Your task to perform on an android device: all mails in gmail Image 0: 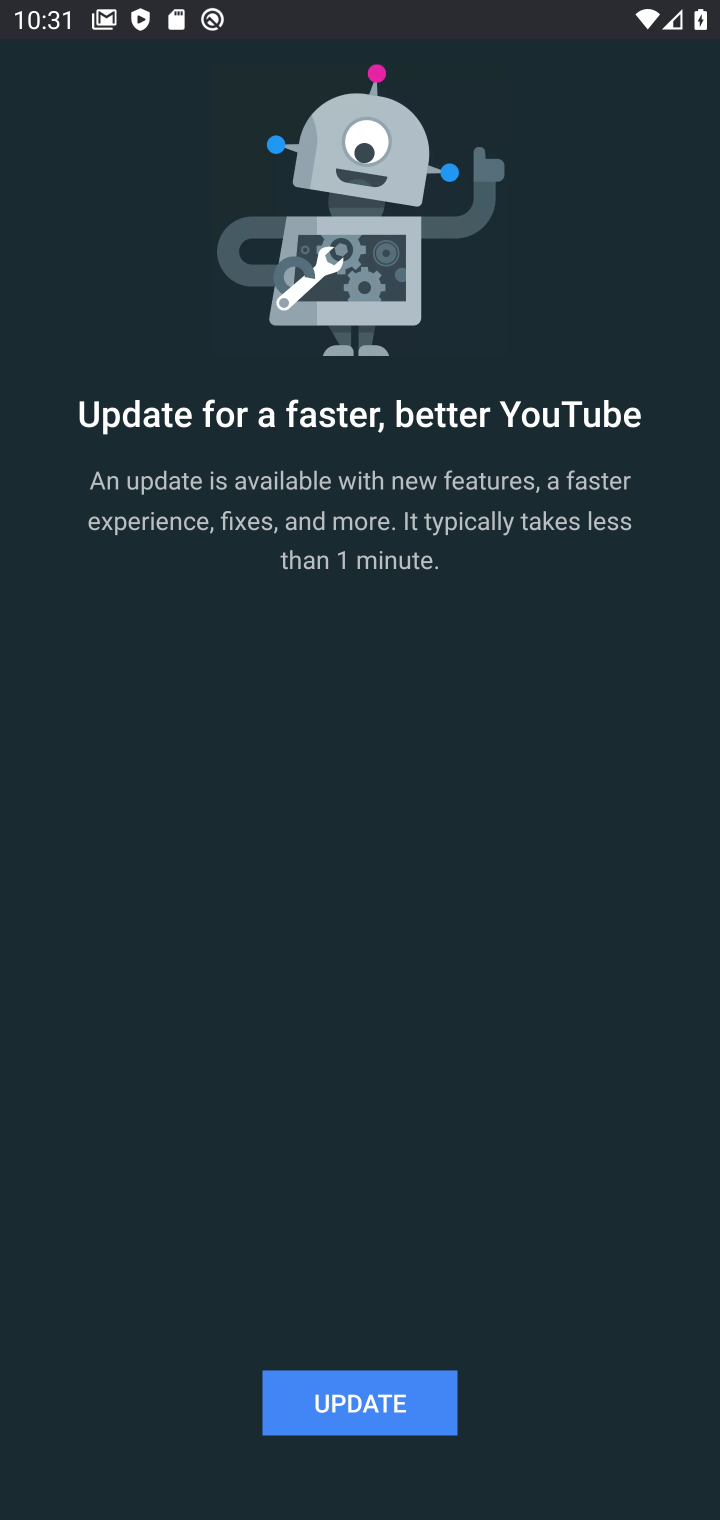
Step 0: press back button
Your task to perform on an android device: all mails in gmail Image 1: 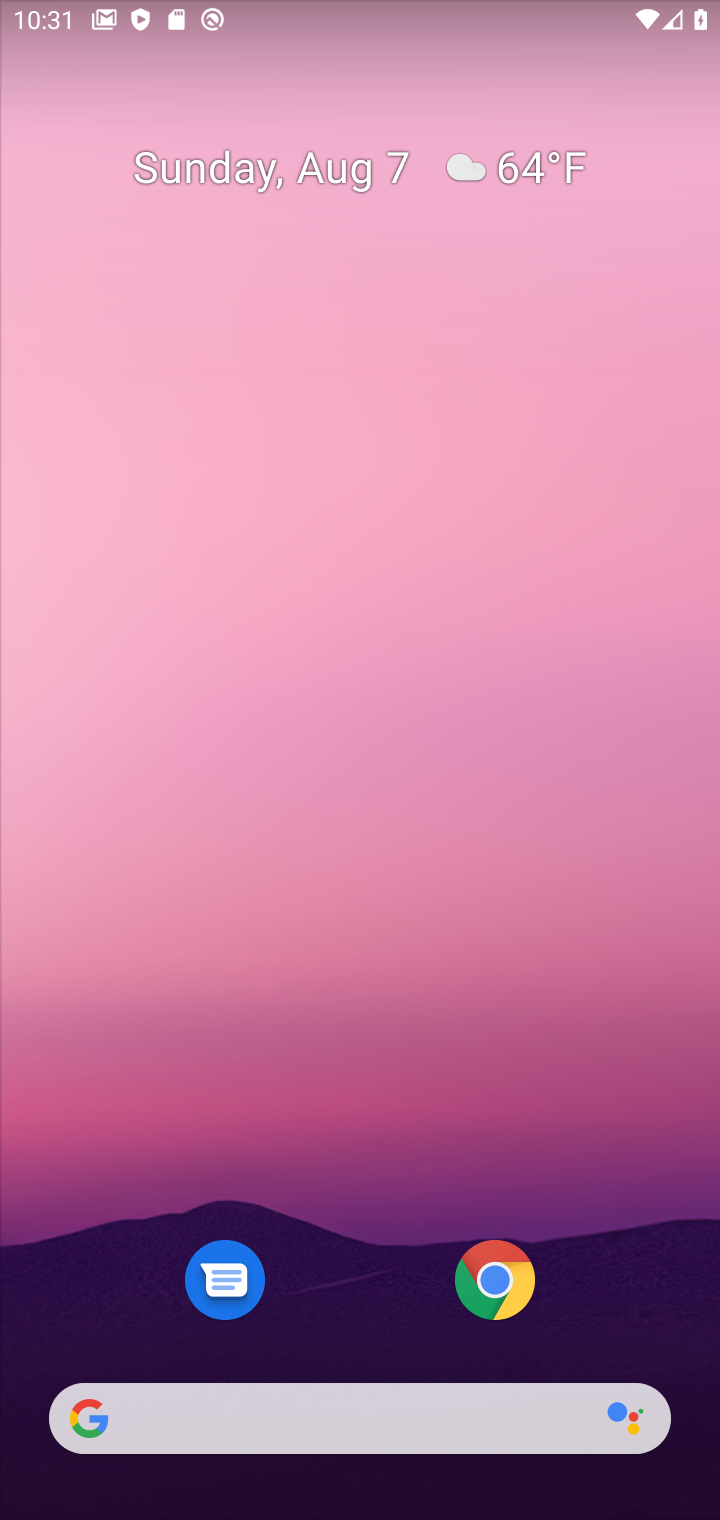
Step 1: drag from (397, 699) to (559, 10)
Your task to perform on an android device: all mails in gmail Image 2: 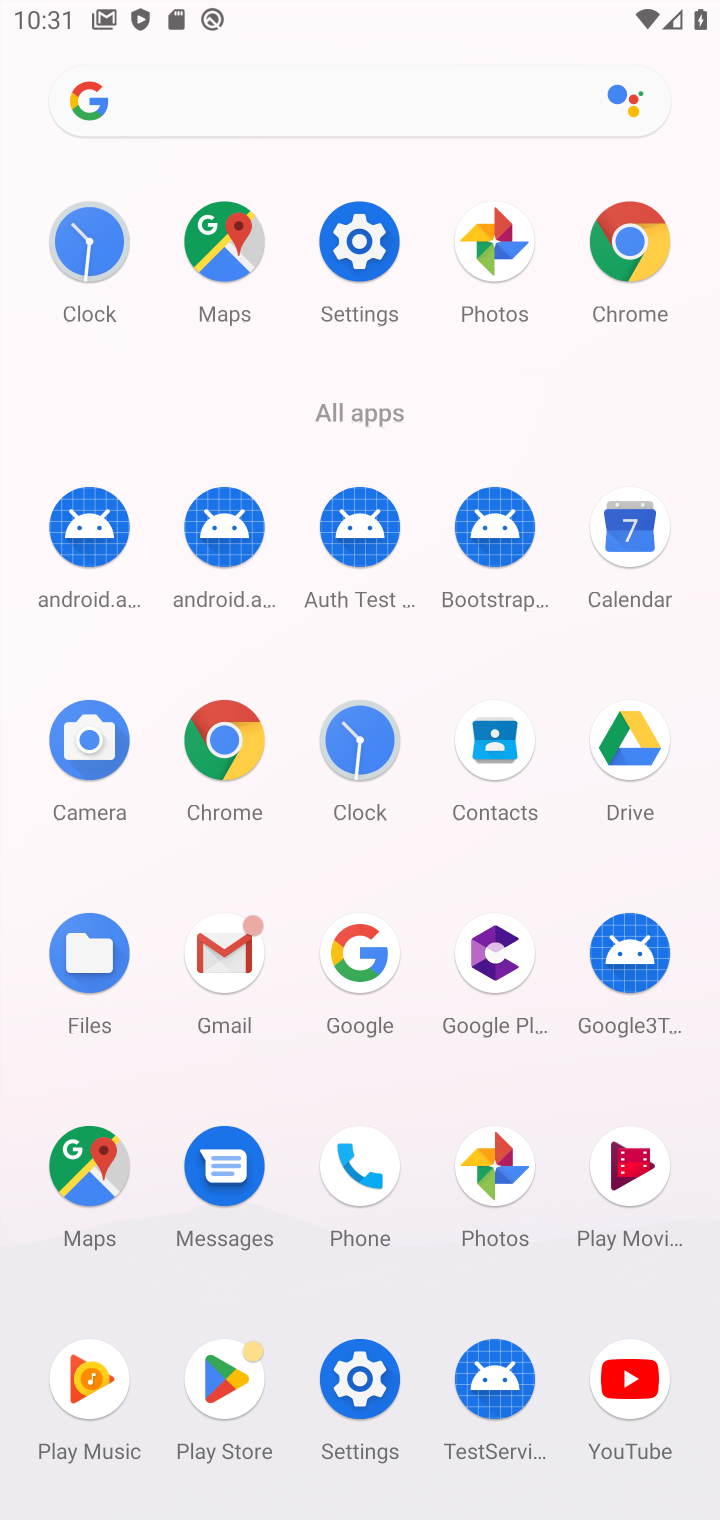
Step 2: click (213, 936)
Your task to perform on an android device: all mails in gmail Image 3: 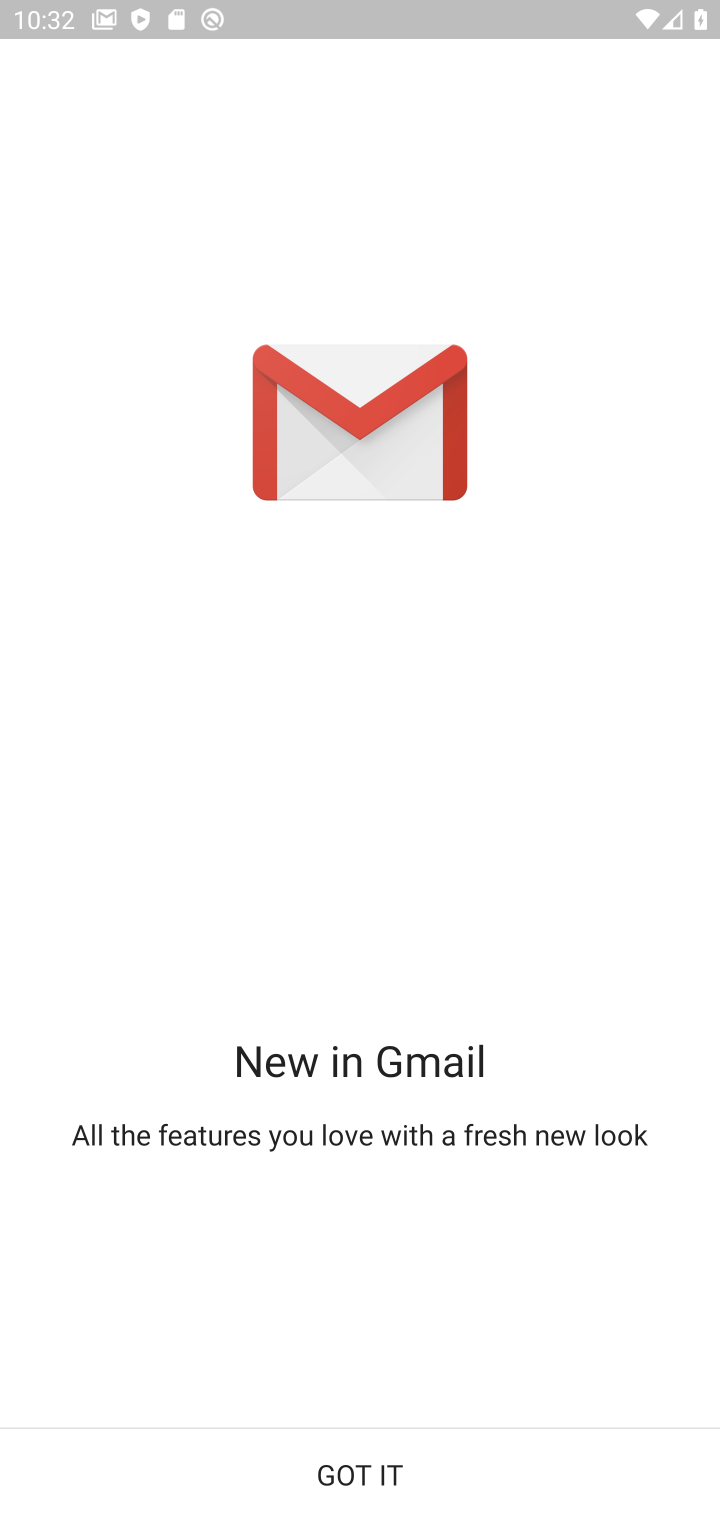
Step 3: click (312, 1461)
Your task to perform on an android device: all mails in gmail Image 4: 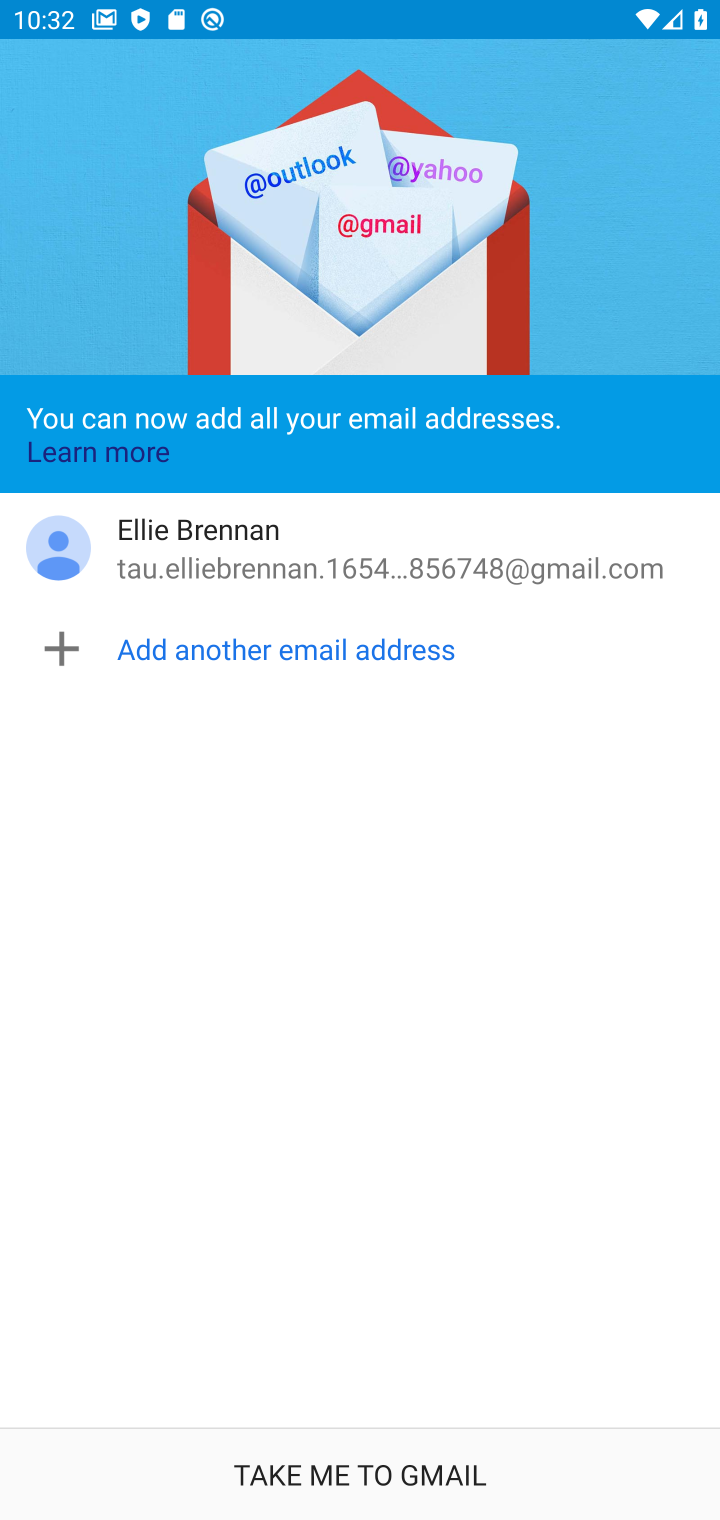
Step 4: click (323, 1485)
Your task to perform on an android device: all mails in gmail Image 5: 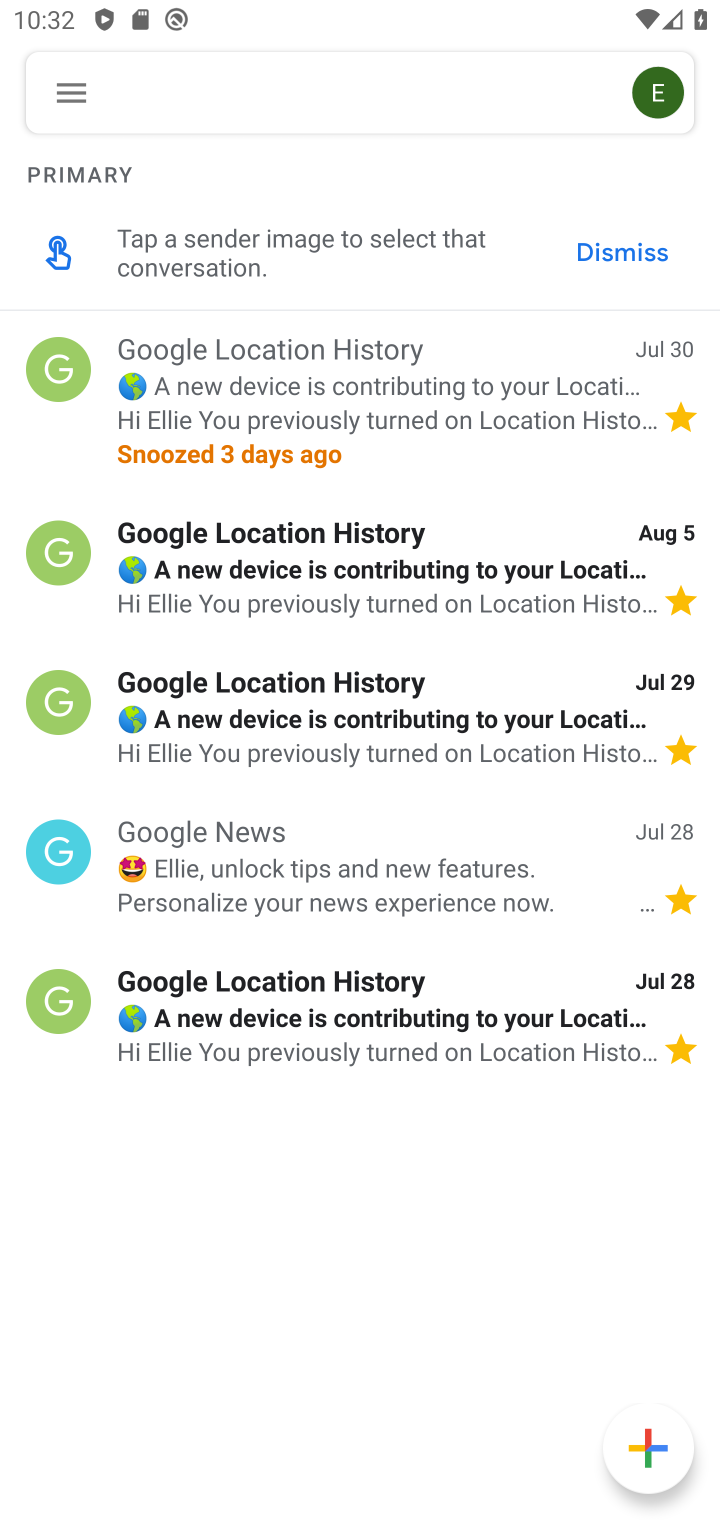
Step 5: click (60, 95)
Your task to perform on an android device: all mails in gmail Image 6: 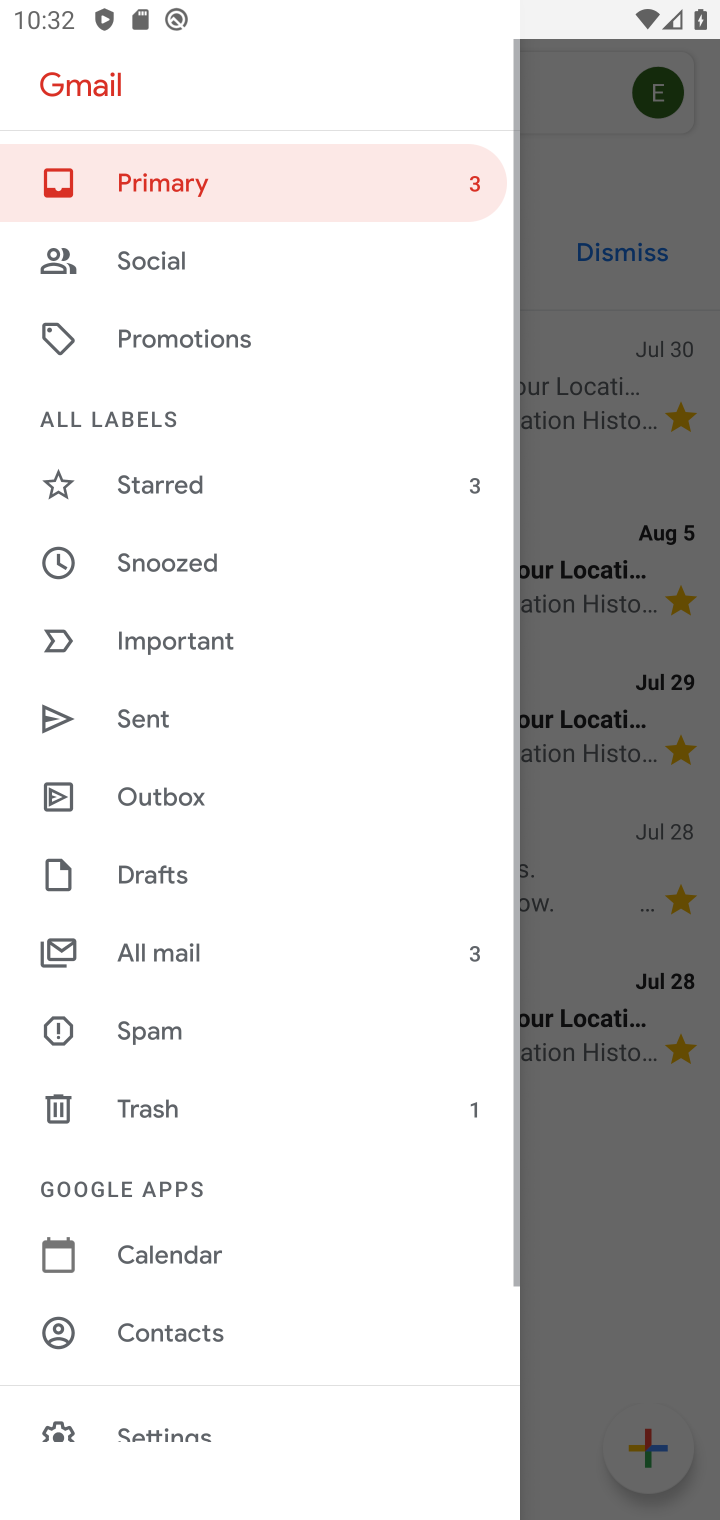
Step 6: click (239, 960)
Your task to perform on an android device: all mails in gmail Image 7: 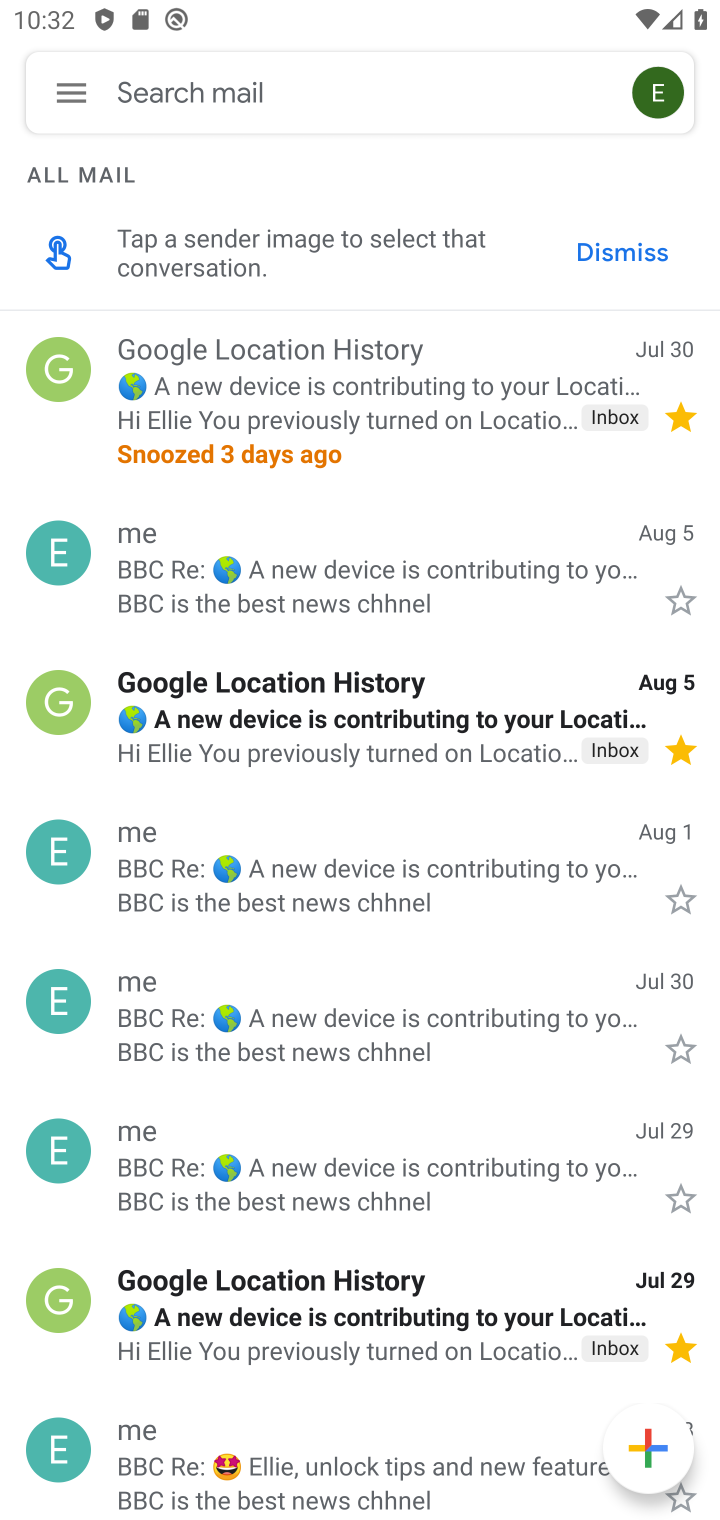
Step 7: task complete